Your task to perform on an android device: check android version Image 0: 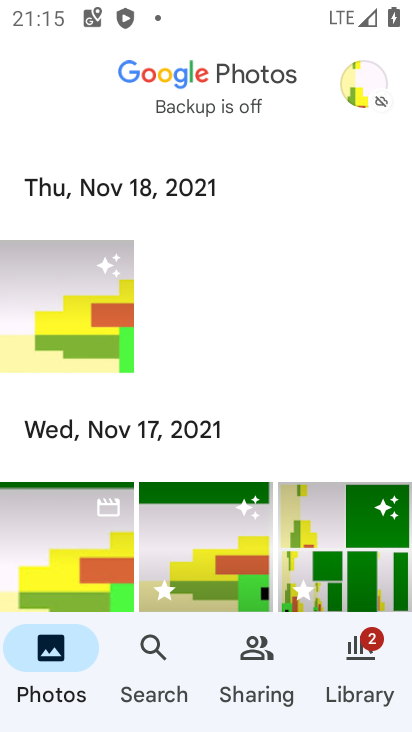
Step 0: press home button
Your task to perform on an android device: check android version Image 1: 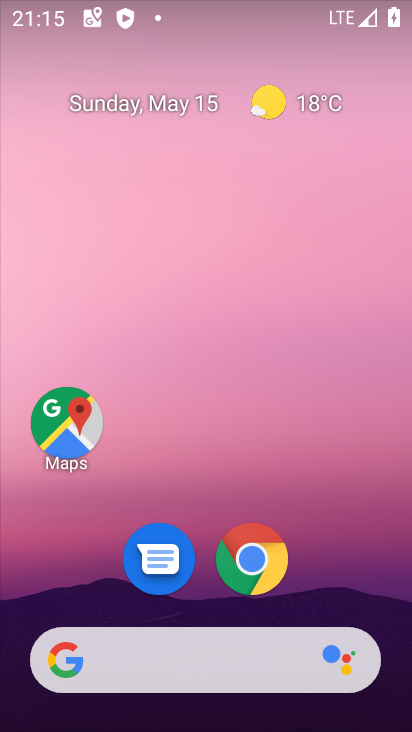
Step 1: drag from (308, 509) to (191, 33)
Your task to perform on an android device: check android version Image 2: 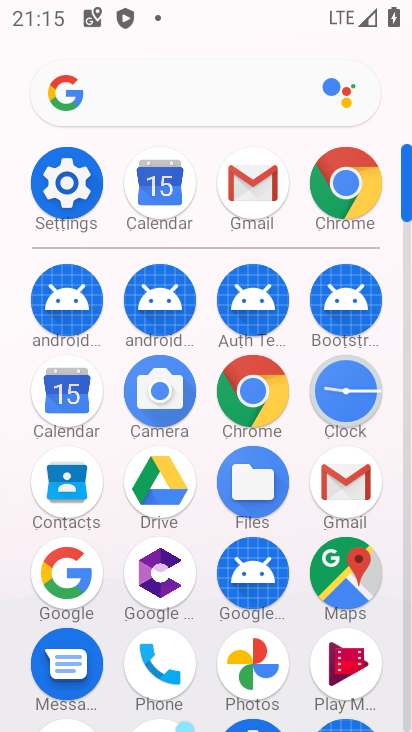
Step 2: click (69, 188)
Your task to perform on an android device: check android version Image 3: 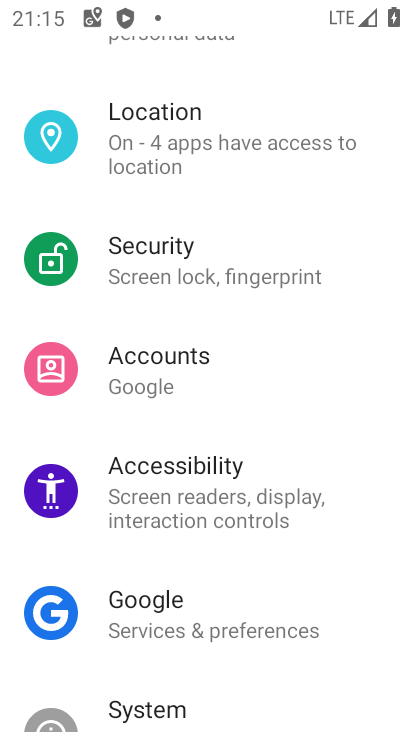
Step 3: task complete